Your task to perform on an android device: Search for the best rated kitchen reno kits on Lowes.com Image 0: 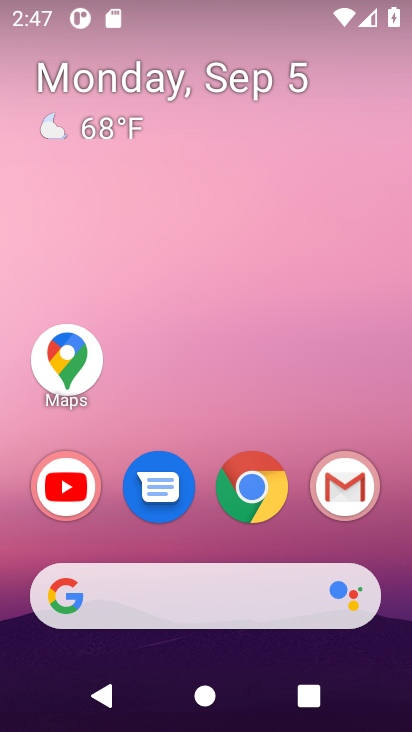
Step 0: click (230, 507)
Your task to perform on an android device: Search for the best rated kitchen reno kits on Lowes.com Image 1: 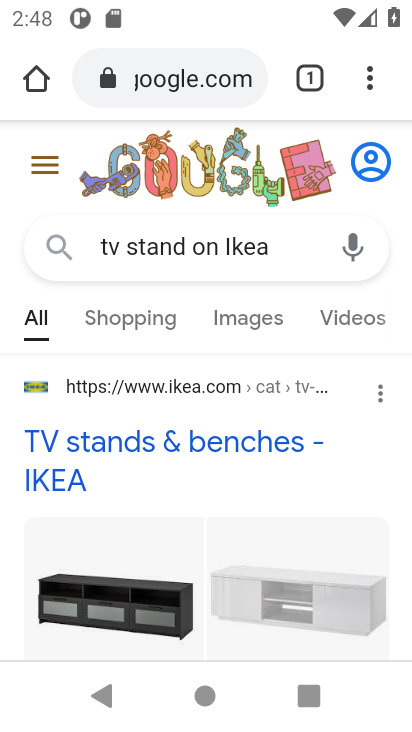
Step 1: click (243, 88)
Your task to perform on an android device: Search for the best rated kitchen reno kits on Lowes.com Image 2: 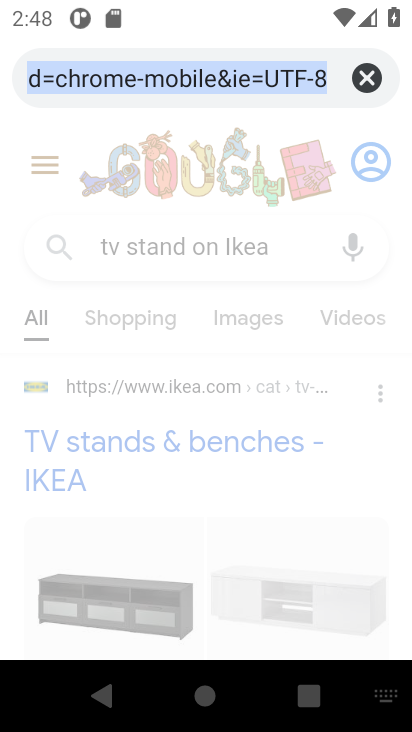
Step 2: click (368, 76)
Your task to perform on an android device: Search for the best rated kitchen reno kits on Lowes.com Image 3: 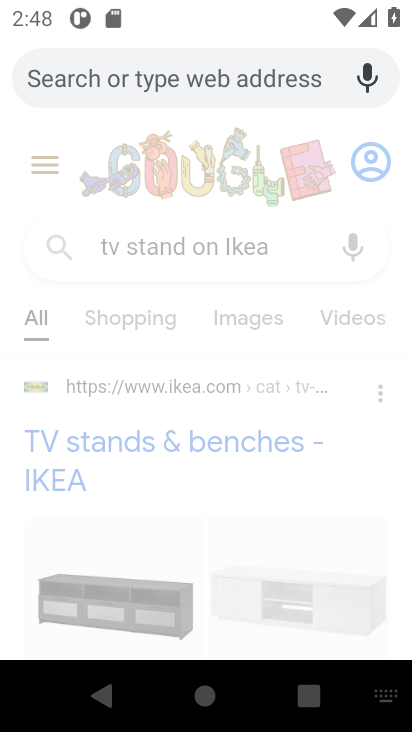
Step 3: type "the best rated kitchen reno kits on Lowes.com"
Your task to perform on an android device: Search for the best rated kitchen reno kits on Lowes.com Image 4: 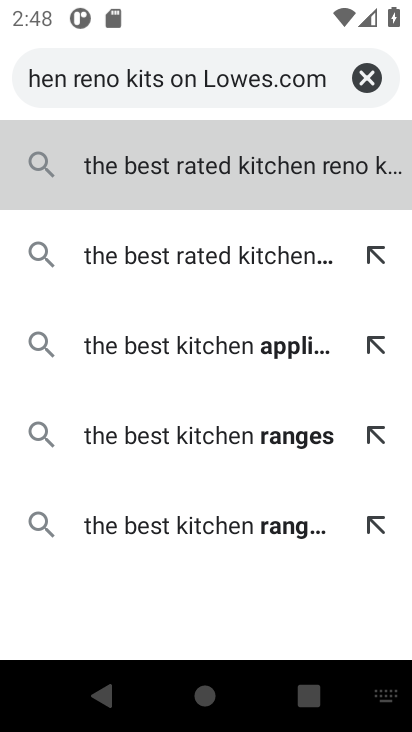
Step 4: click (295, 150)
Your task to perform on an android device: Search for the best rated kitchen reno kits on Lowes.com Image 5: 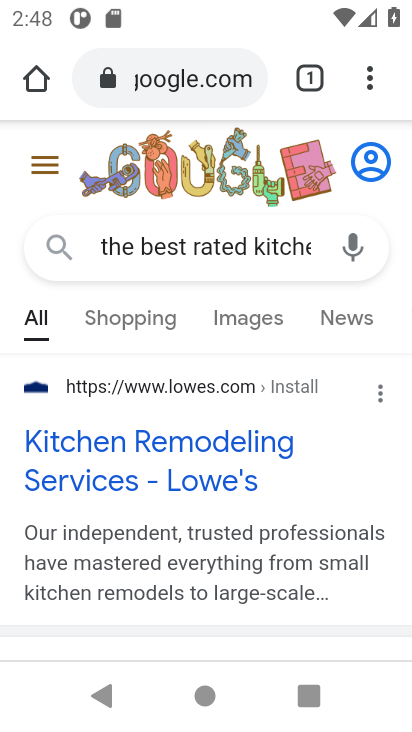
Step 5: task complete